Your task to perform on an android device: Open Wikipedia Image 0: 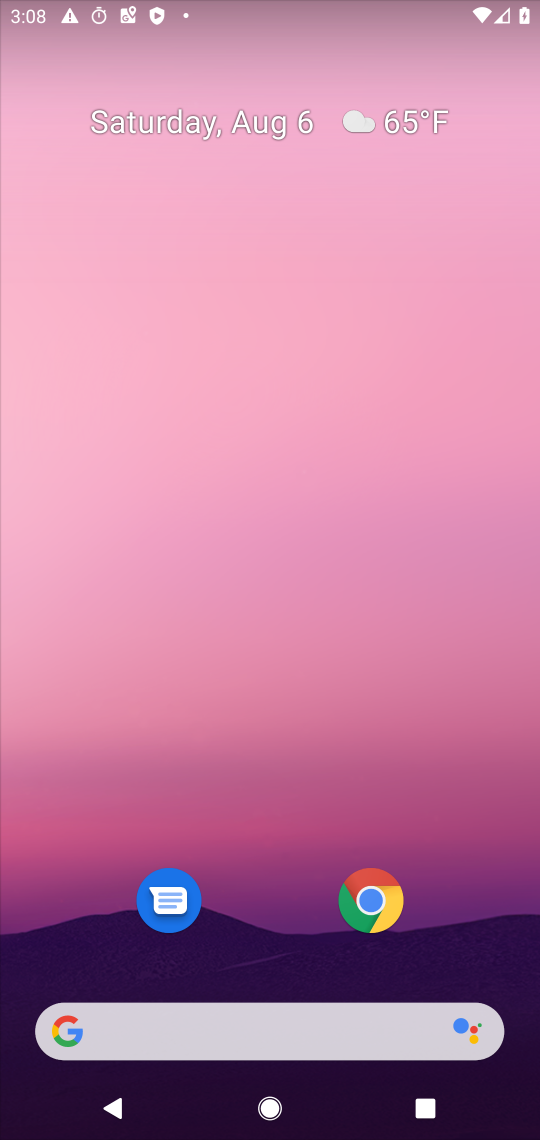
Step 0: press home button
Your task to perform on an android device: Open Wikipedia Image 1: 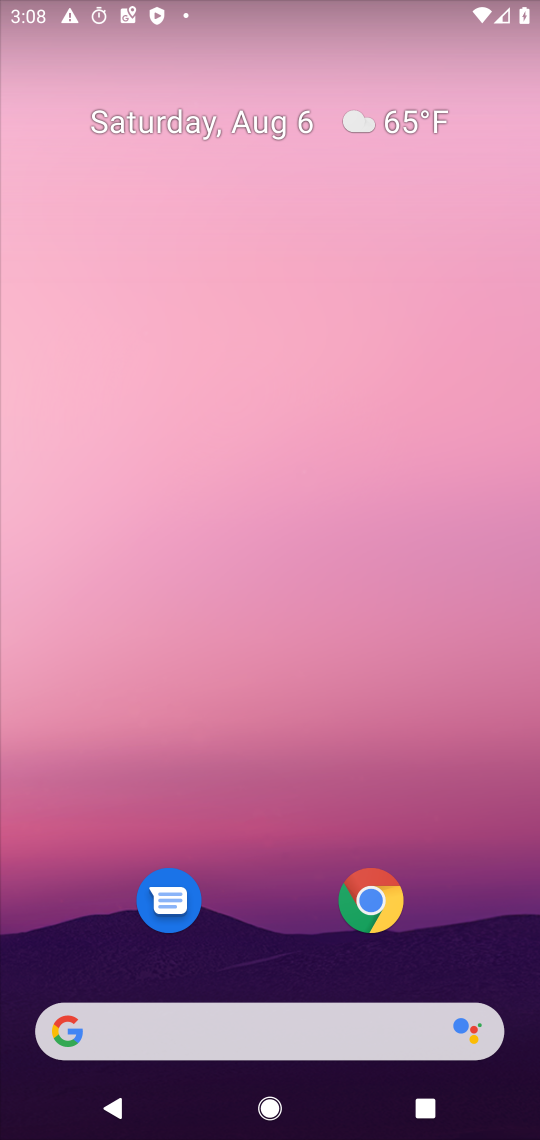
Step 1: click (58, 1024)
Your task to perform on an android device: Open Wikipedia Image 2: 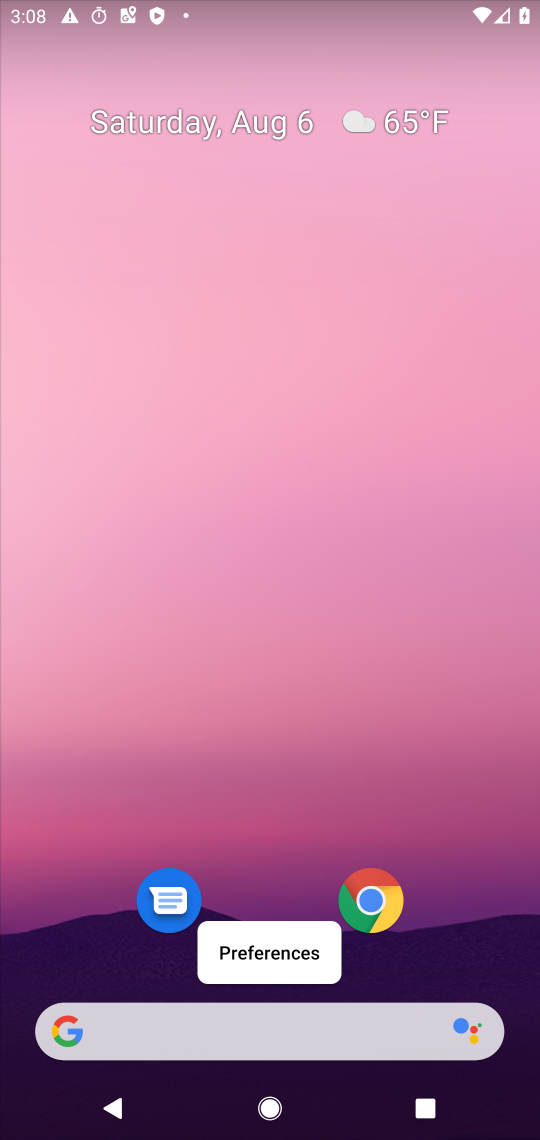
Step 2: click (56, 1019)
Your task to perform on an android device: Open Wikipedia Image 3: 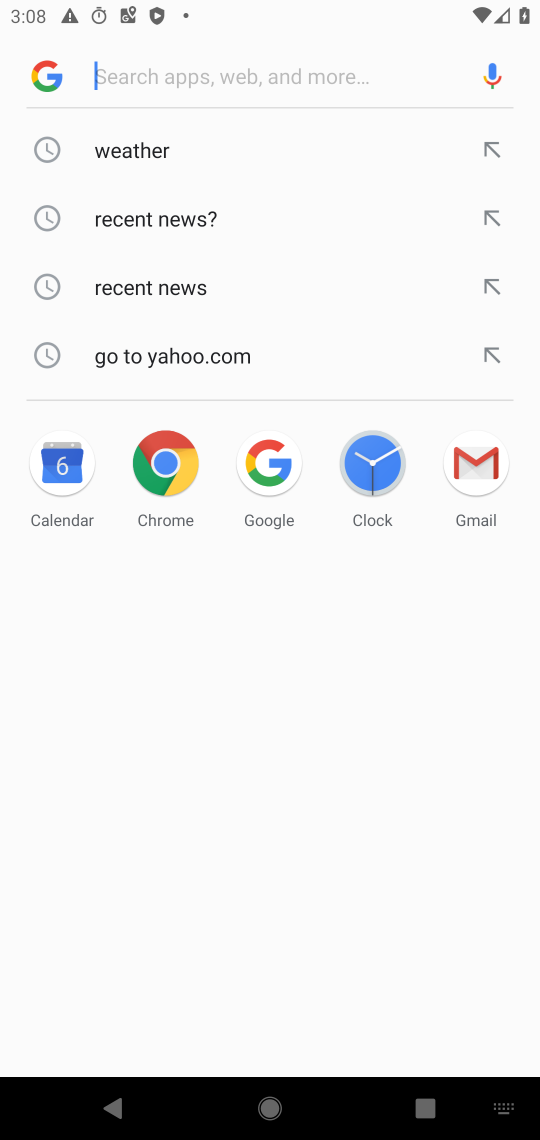
Step 3: type "Wikipedia"
Your task to perform on an android device: Open Wikipedia Image 4: 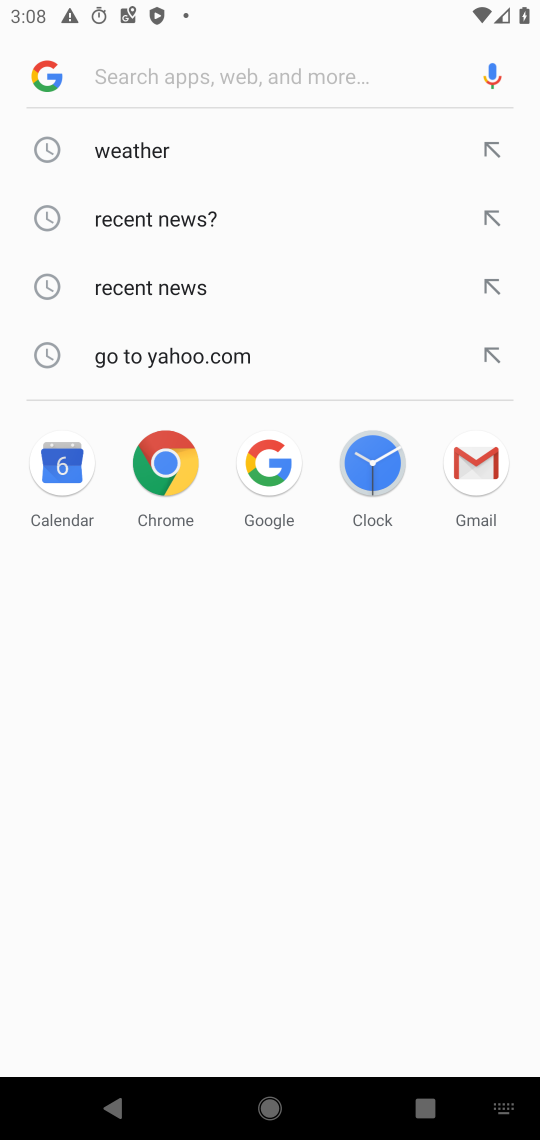
Step 4: click (163, 67)
Your task to perform on an android device: Open Wikipedia Image 5: 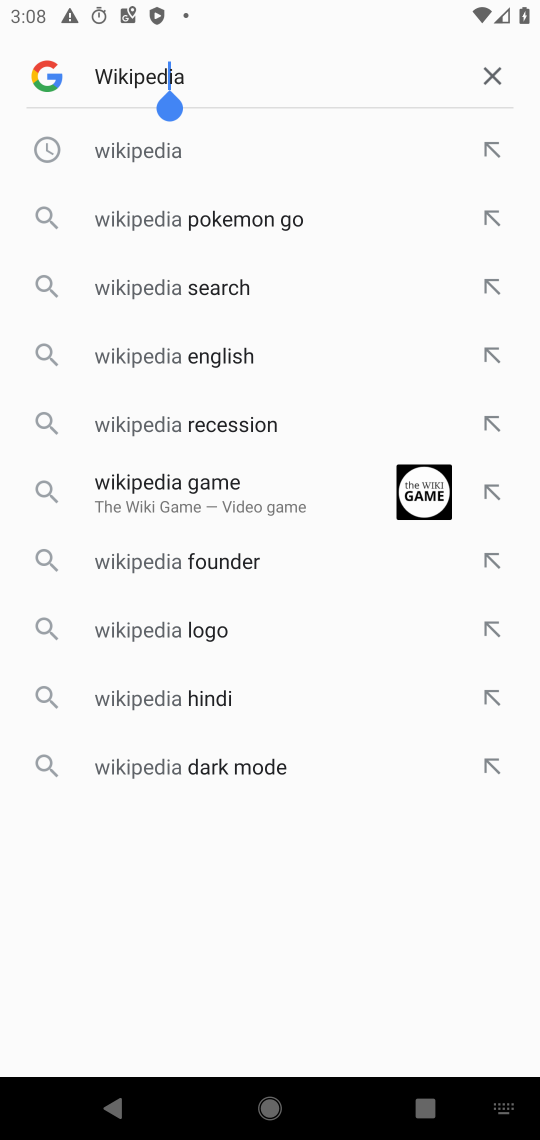
Step 5: press enter
Your task to perform on an android device: Open Wikipedia Image 6: 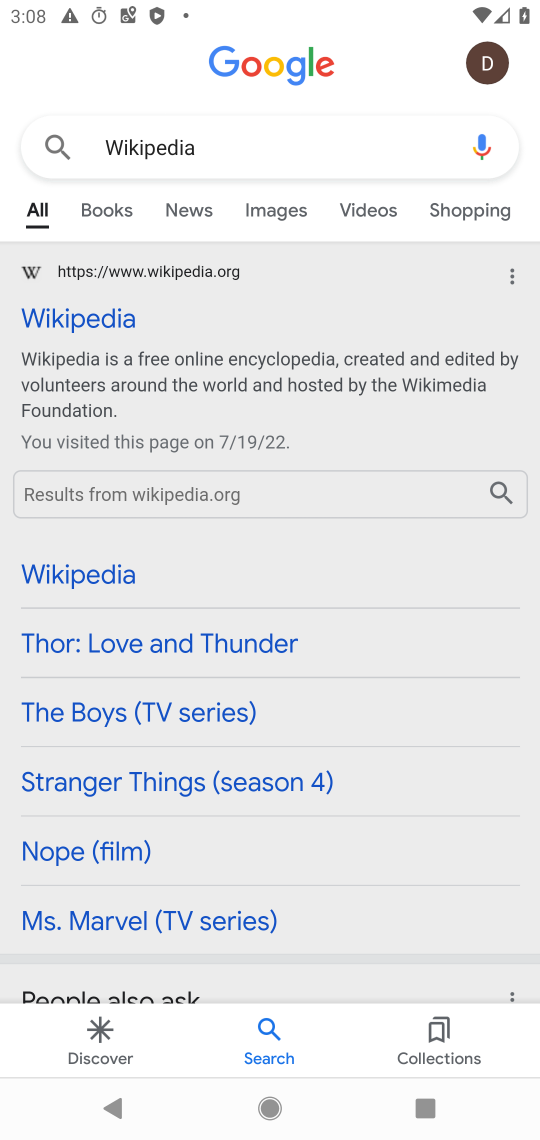
Step 6: click (89, 319)
Your task to perform on an android device: Open Wikipedia Image 7: 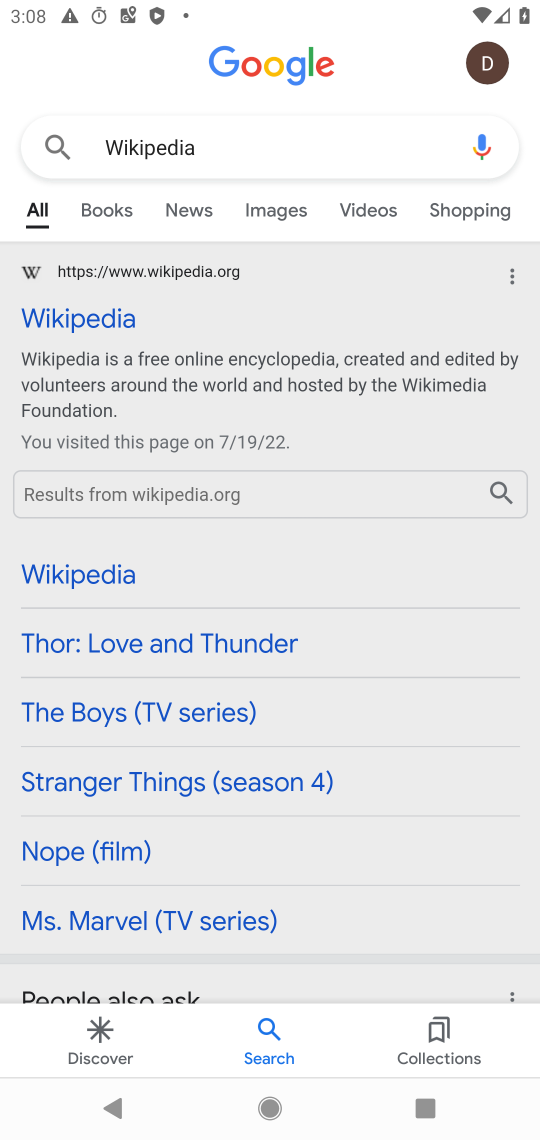
Step 7: click (65, 319)
Your task to perform on an android device: Open Wikipedia Image 8: 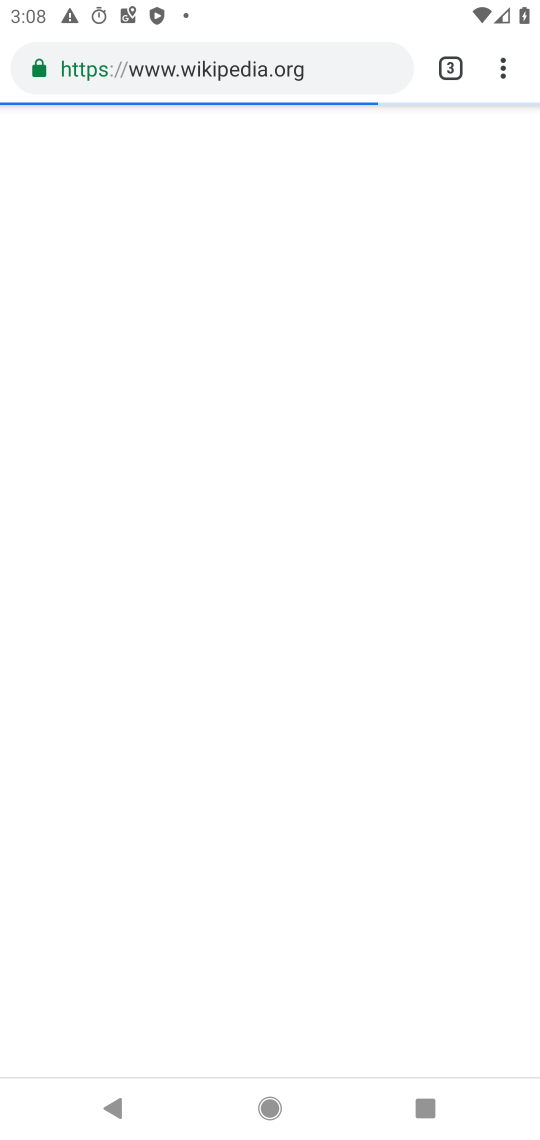
Step 8: click (61, 318)
Your task to perform on an android device: Open Wikipedia Image 9: 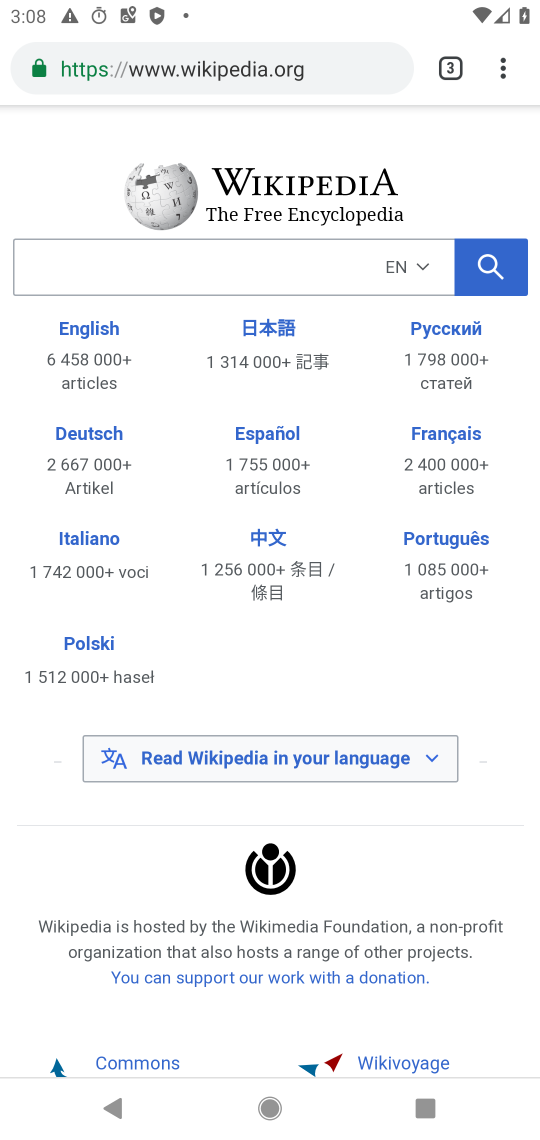
Step 9: task complete